Your task to perform on an android device: uninstall "Reddit" Image 0: 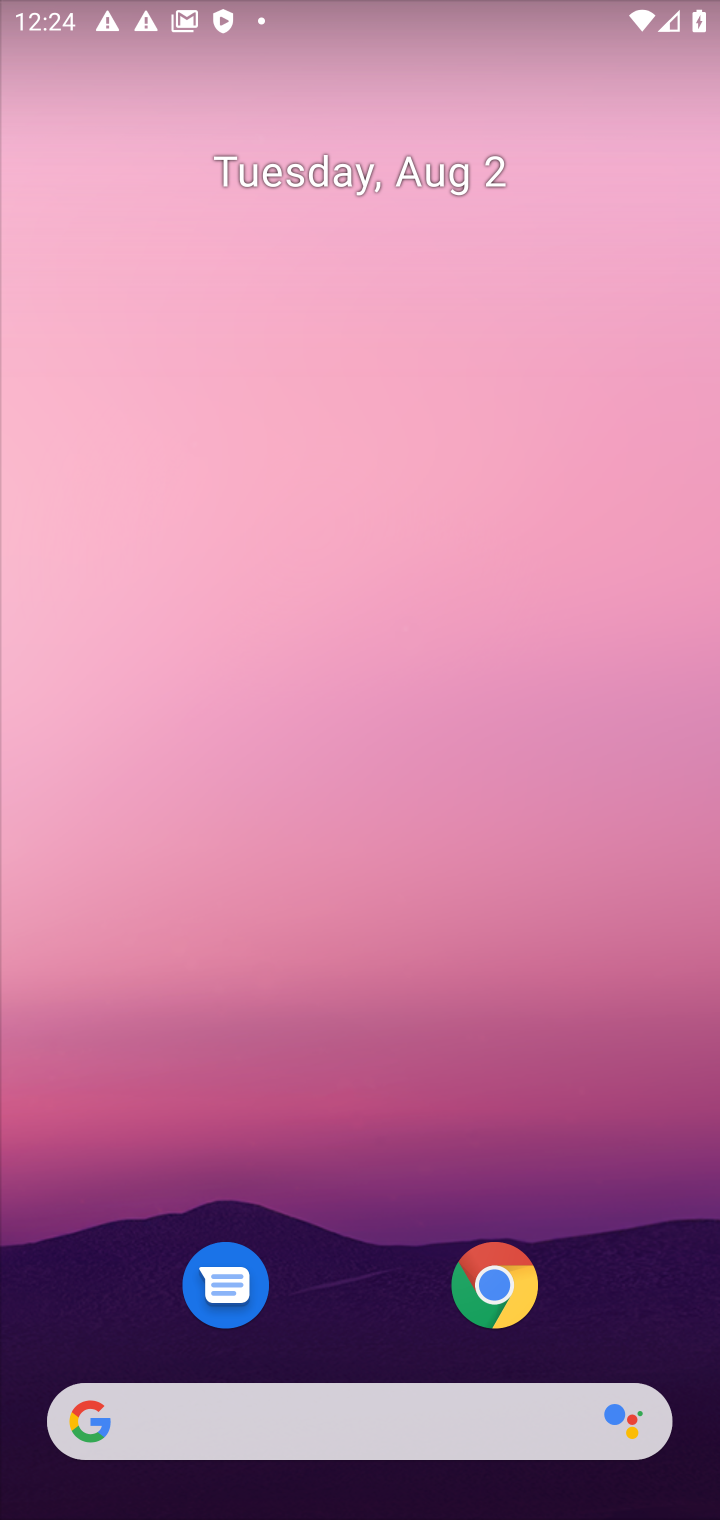
Step 0: drag from (437, 1073) to (553, 323)
Your task to perform on an android device: uninstall "Reddit" Image 1: 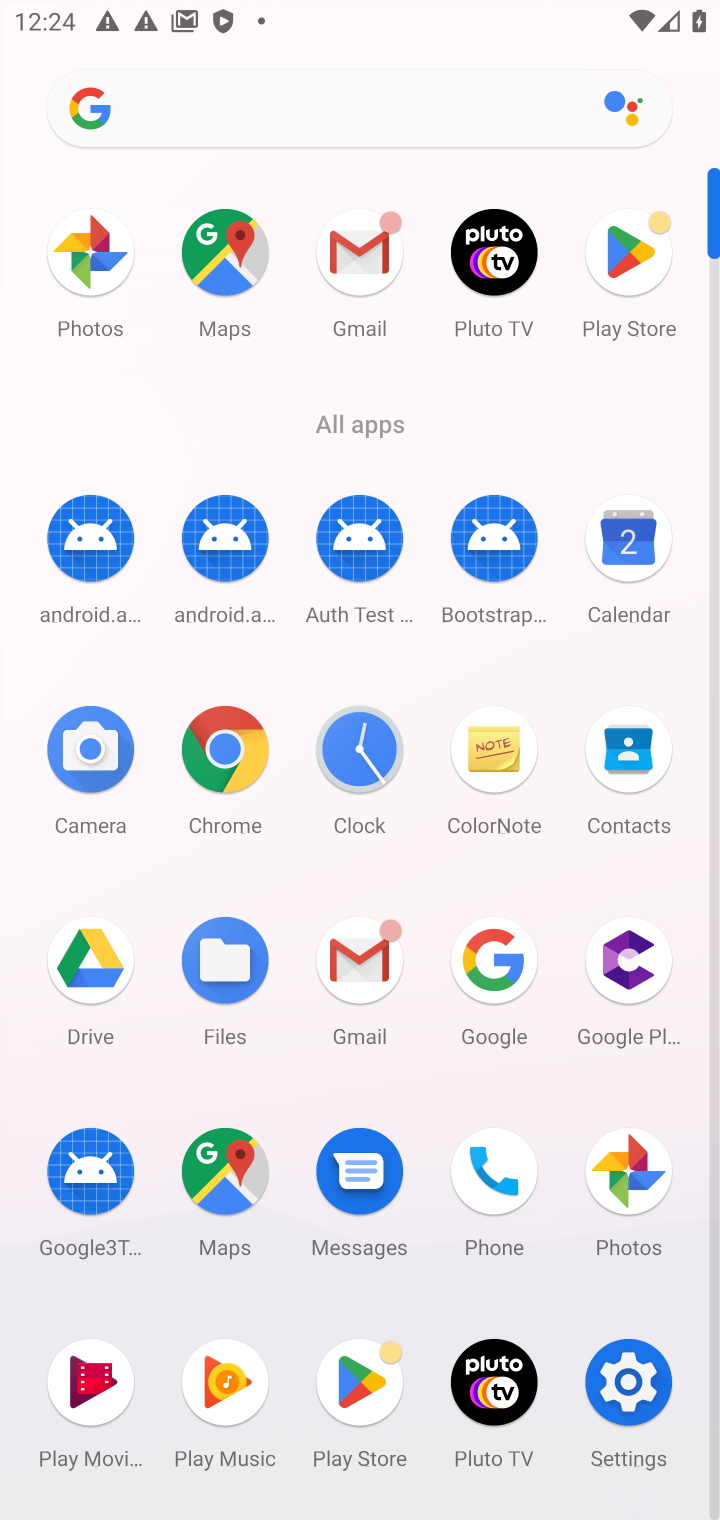
Step 1: click (357, 1373)
Your task to perform on an android device: uninstall "Reddit" Image 2: 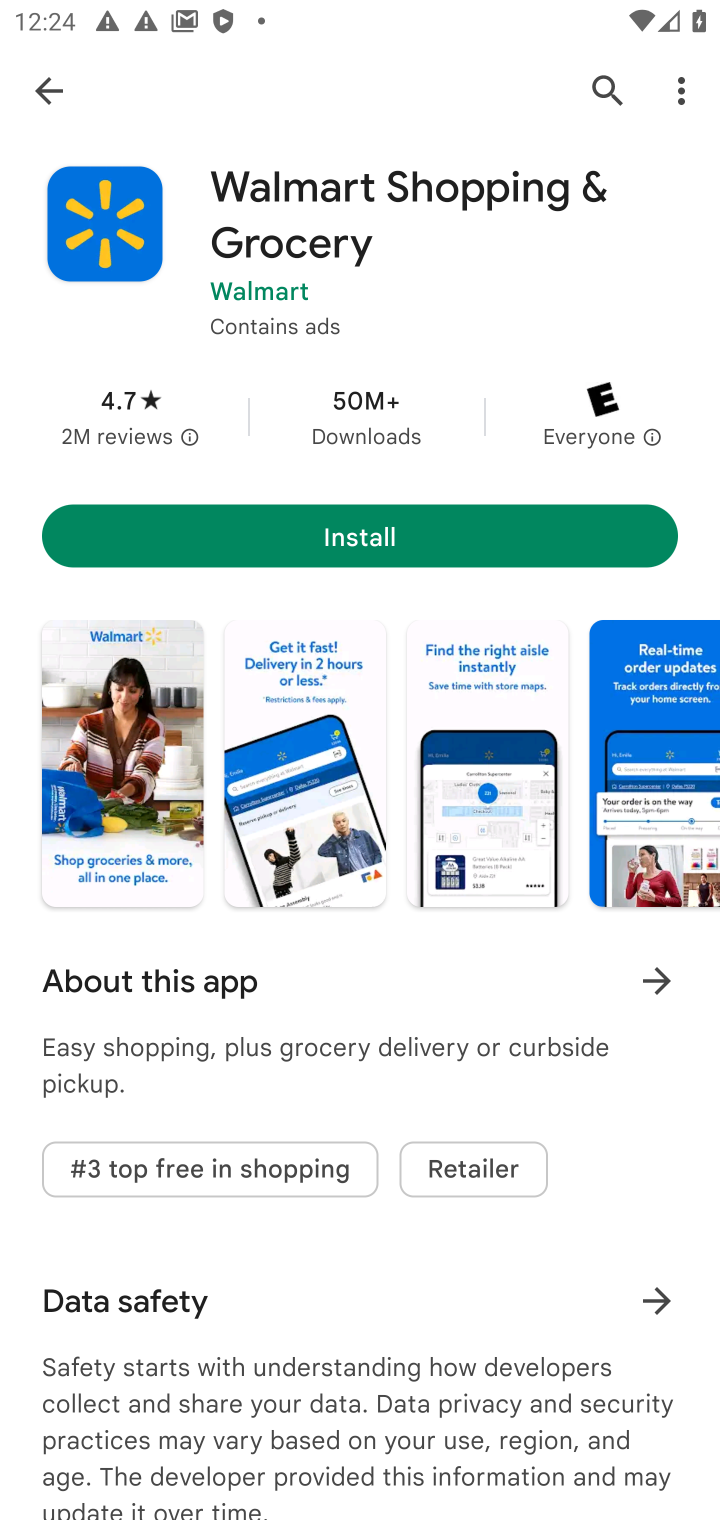
Step 2: click (616, 83)
Your task to perform on an android device: uninstall "Reddit" Image 3: 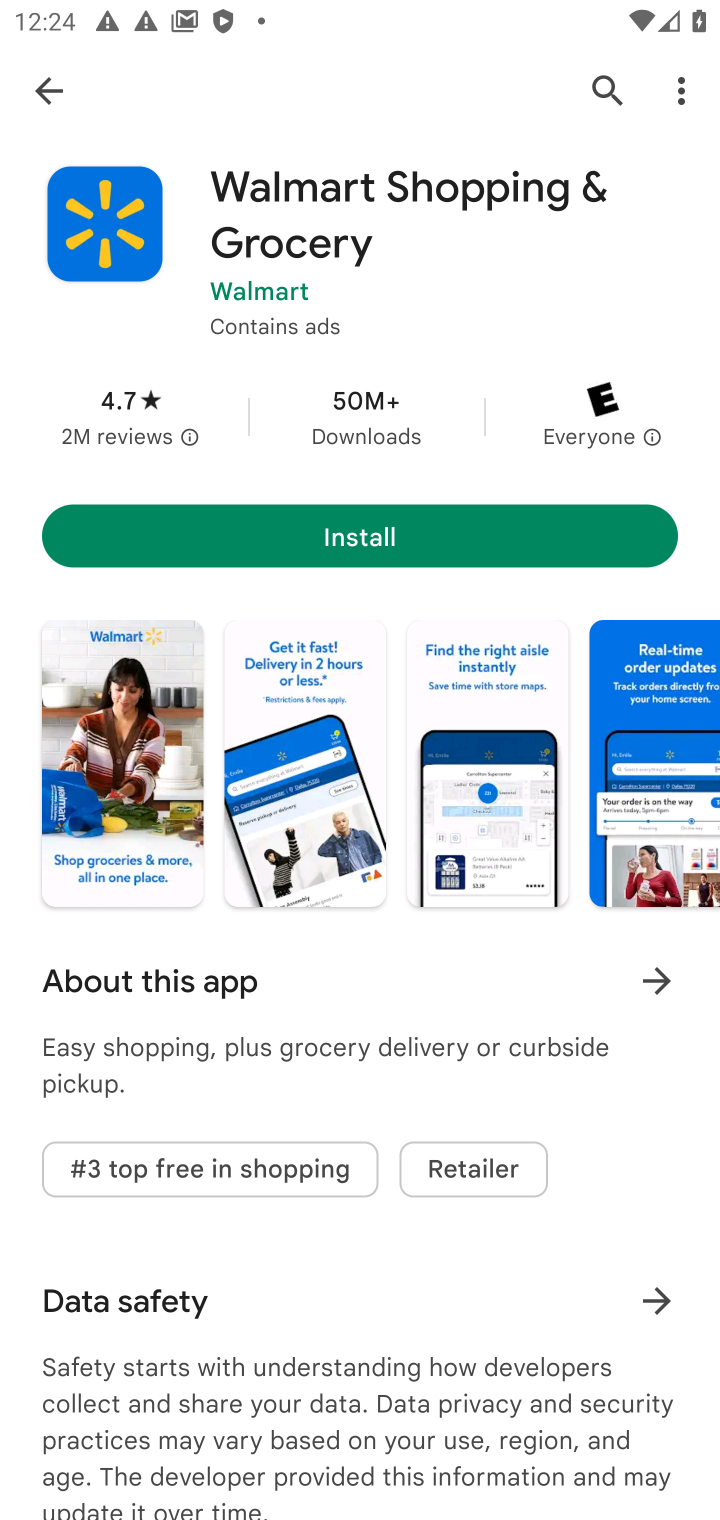
Step 3: click (594, 81)
Your task to perform on an android device: uninstall "Reddit" Image 4: 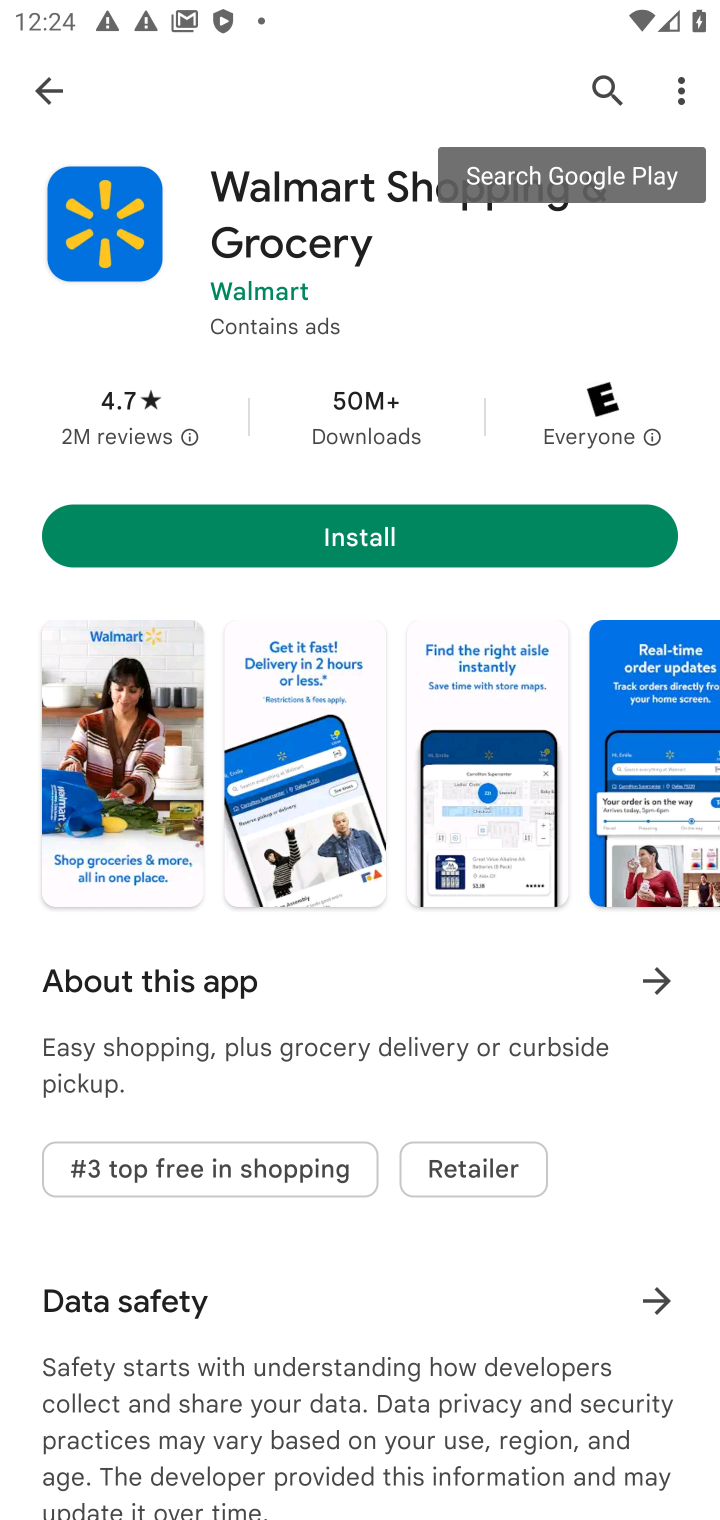
Step 4: click (594, 81)
Your task to perform on an android device: uninstall "Reddit" Image 5: 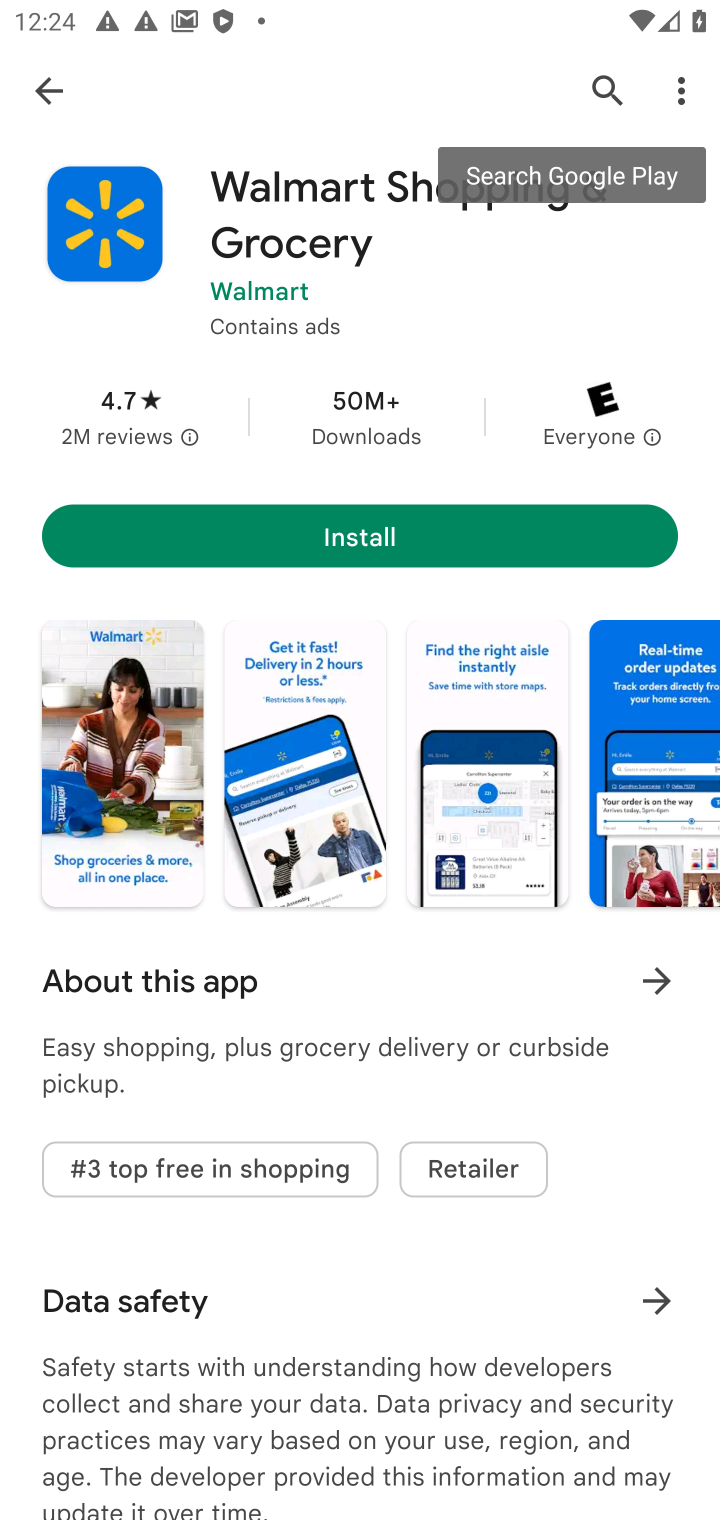
Step 5: click (43, 86)
Your task to perform on an android device: uninstall "Reddit" Image 6: 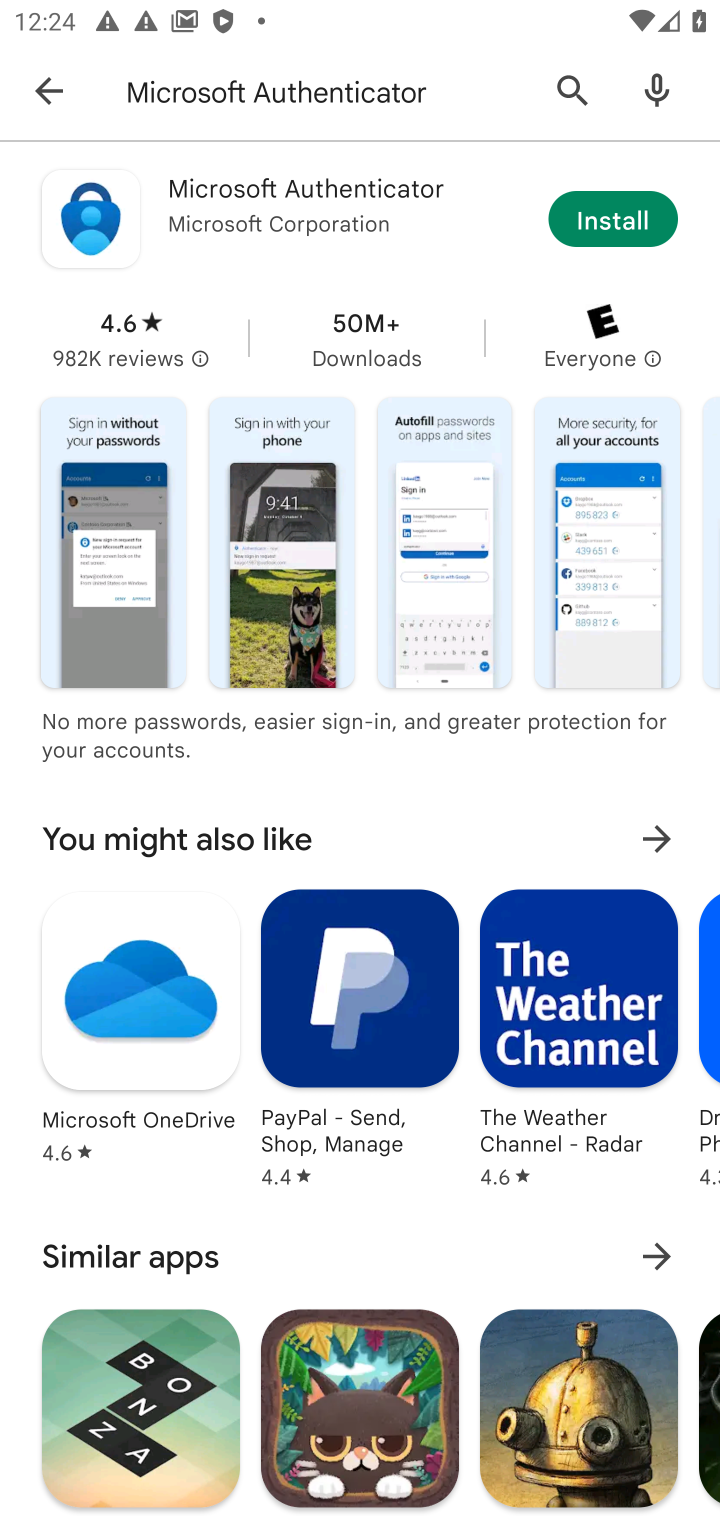
Step 6: click (473, 84)
Your task to perform on an android device: uninstall "Reddit" Image 7: 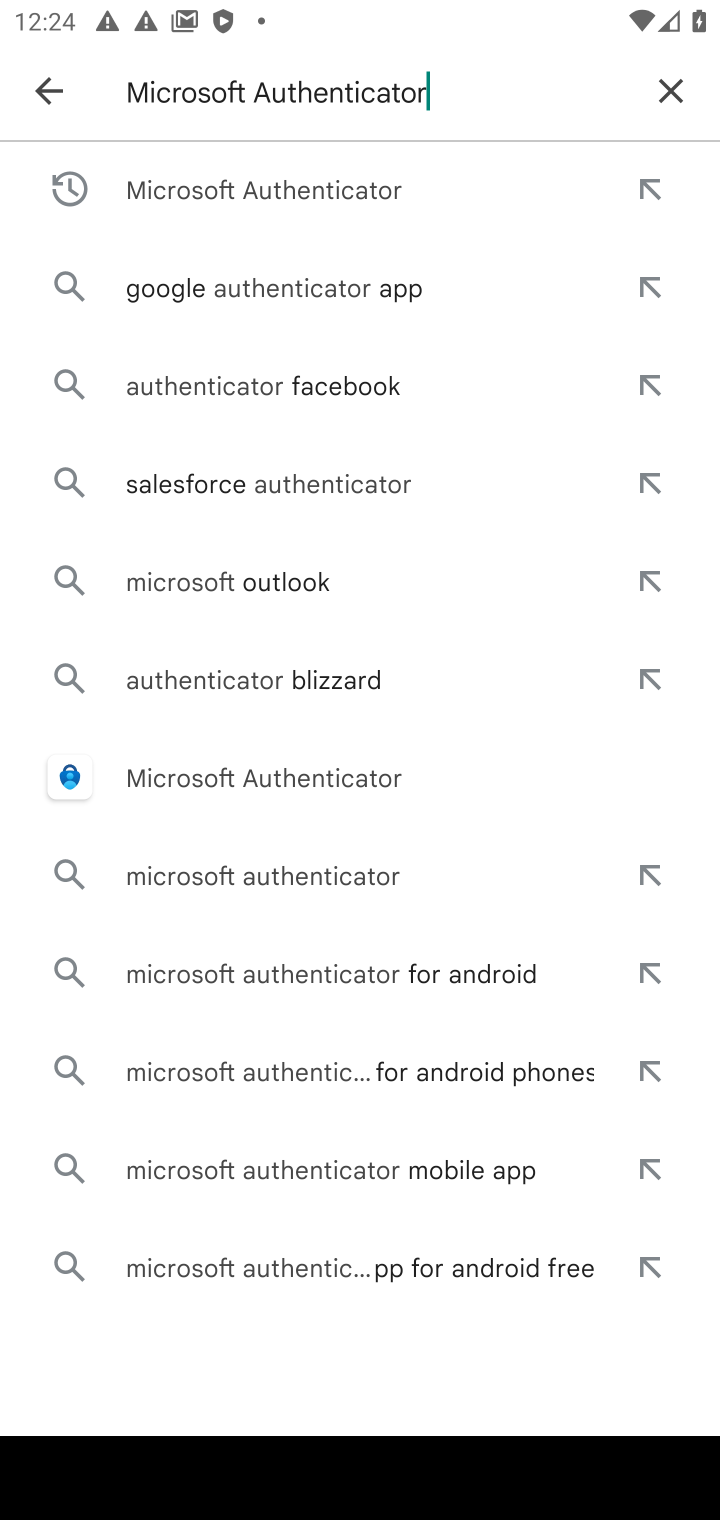
Step 7: click (681, 84)
Your task to perform on an android device: uninstall "Reddit" Image 8: 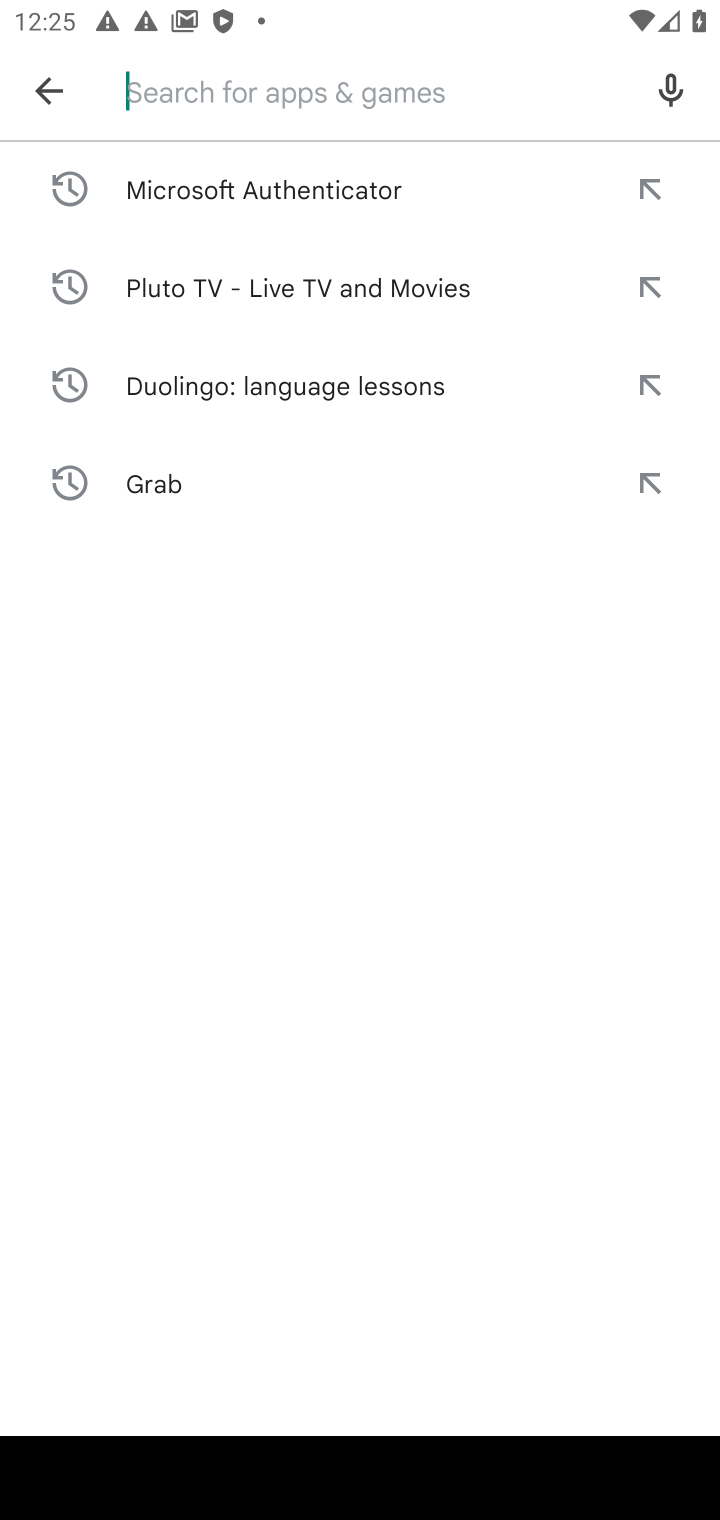
Step 8: type "Reddit"
Your task to perform on an android device: uninstall "Reddit" Image 9: 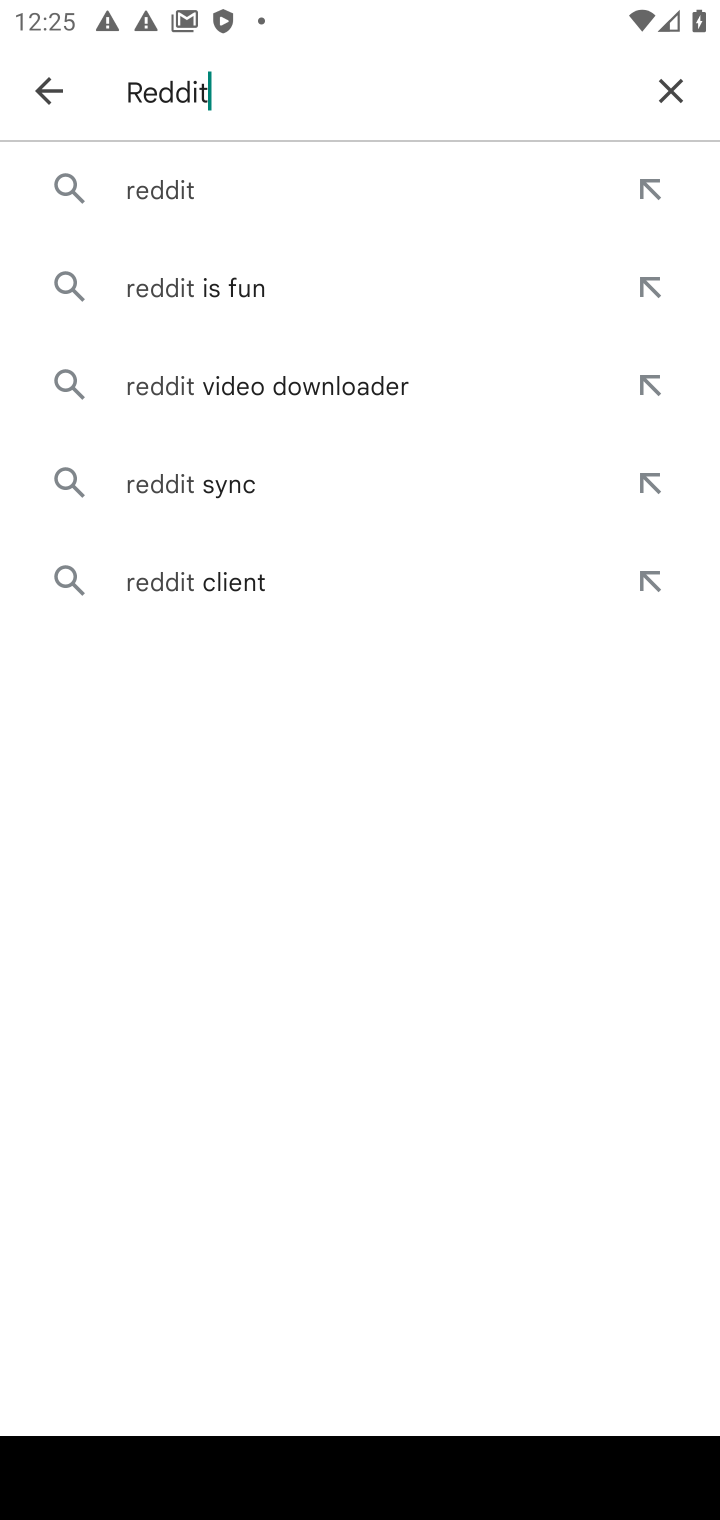
Step 9: press enter
Your task to perform on an android device: uninstall "Reddit" Image 10: 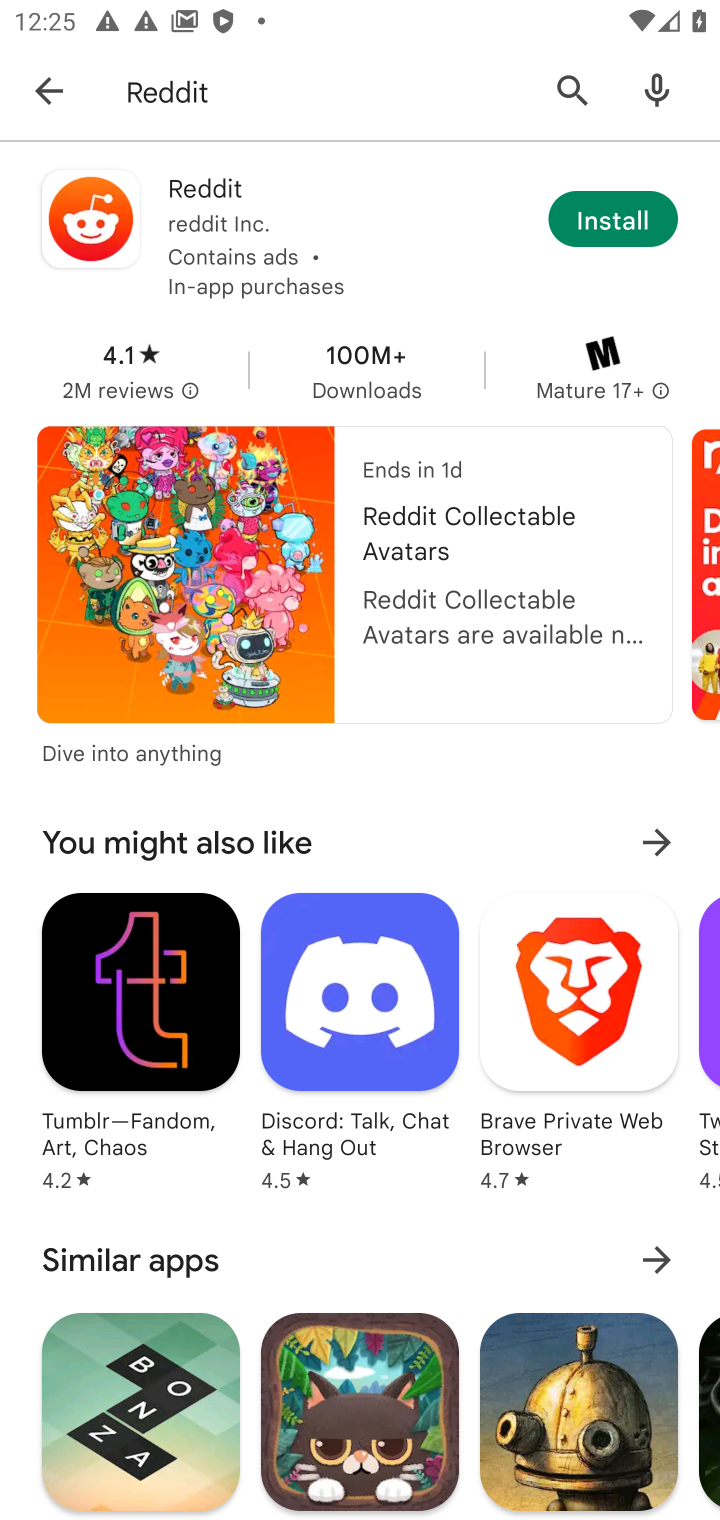
Step 10: task complete